Your task to perform on an android device: toggle priority inbox in the gmail app Image 0: 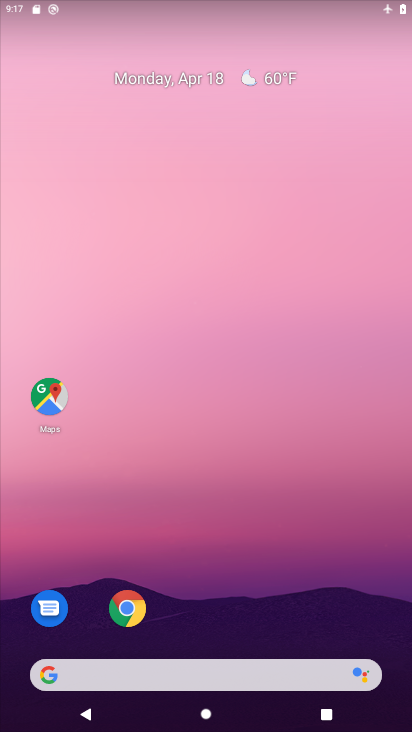
Step 0: drag from (337, 594) to (276, 85)
Your task to perform on an android device: toggle priority inbox in the gmail app Image 1: 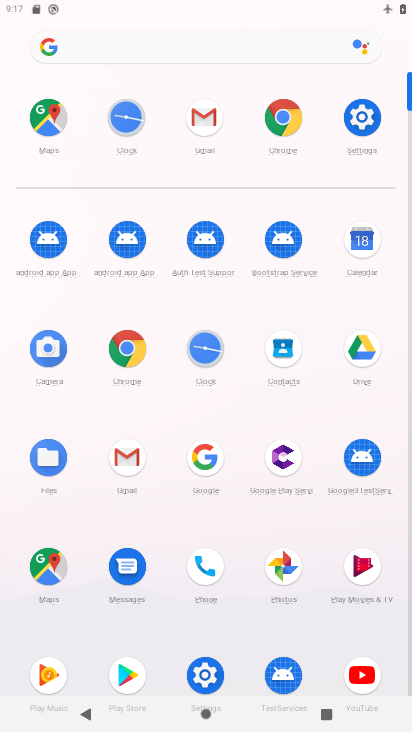
Step 1: click (123, 457)
Your task to perform on an android device: toggle priority inbox in the gmail app Image 2: 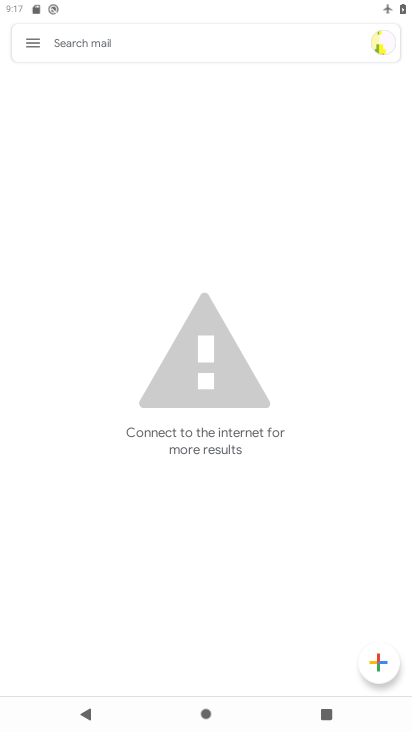
Step 2: click (31, 44)
Your task to perform on an android device: toggle priority inbox in the gmail app Image 3: 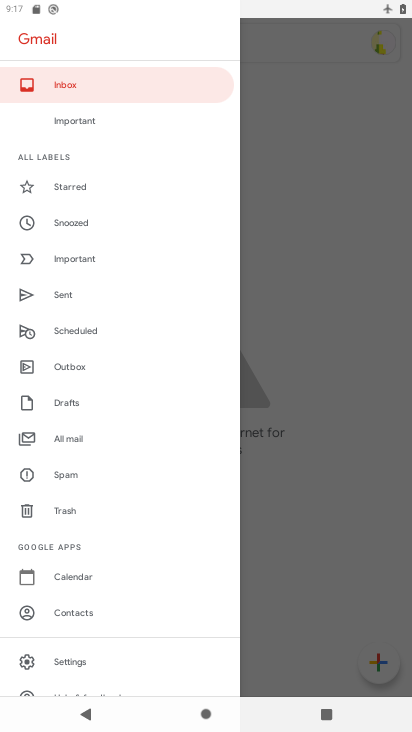
Step 3: click (87, 658)
Your task to perform on an android device: toggle priority inbox in the gmail app Image 4: 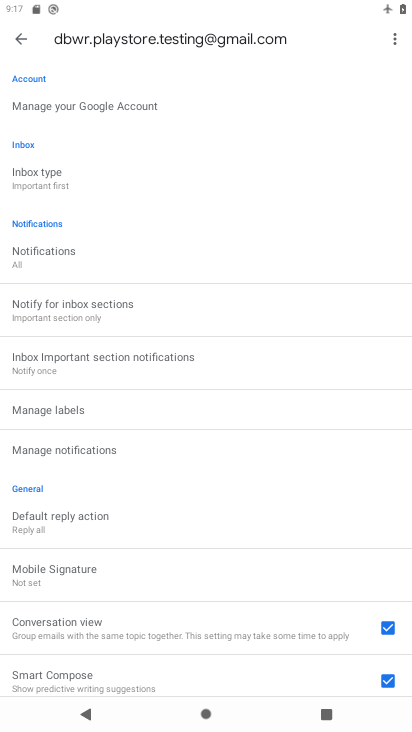
Step 4: click (54, 173)
Your task to perform on an android device: toggle priority inbox in the gmail app Image 5: 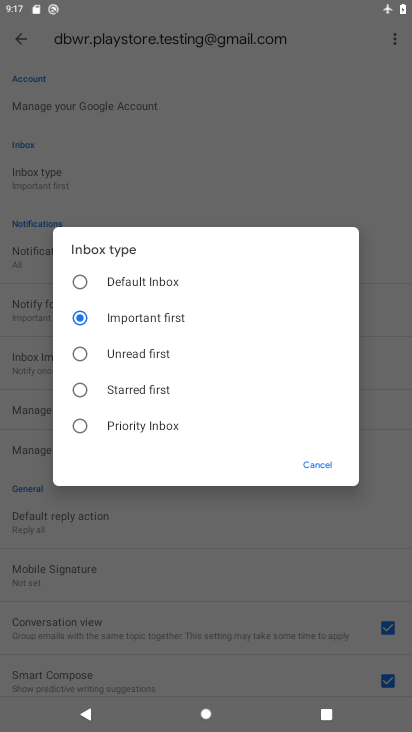
Step 5: click (165, 420)
Your task to perform on an android device: toggle priority inbox in the gmail app Image 6: 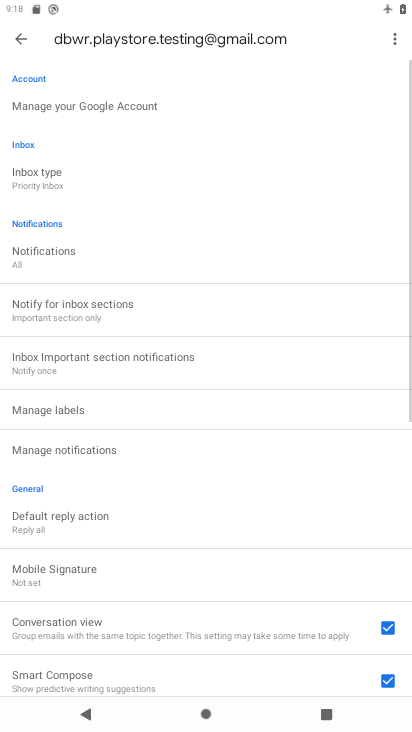
Step 6: task complete